Your task to perform on an android device: Open Yahoo.com Image 0: 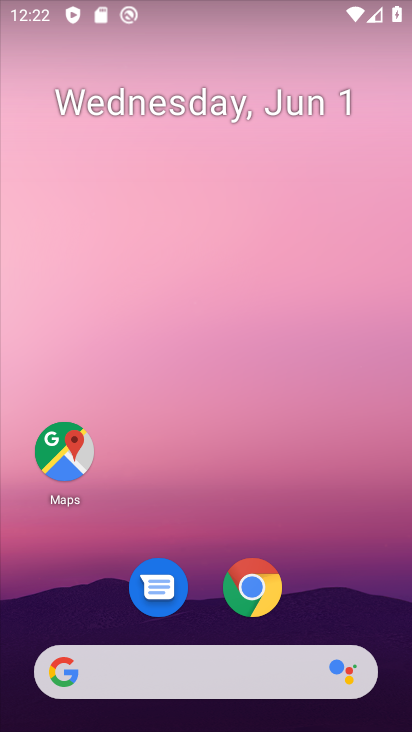
Step 0: click (256, 590)
Your task to perform on an android device: Open Yahoo.com Image 1: 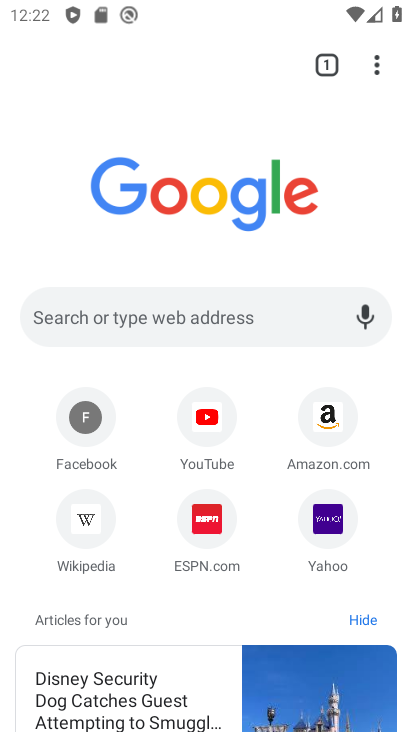
Step 1: click (323, 516)
Your task to perform on an android device: Open Yahoo.com Image 2: 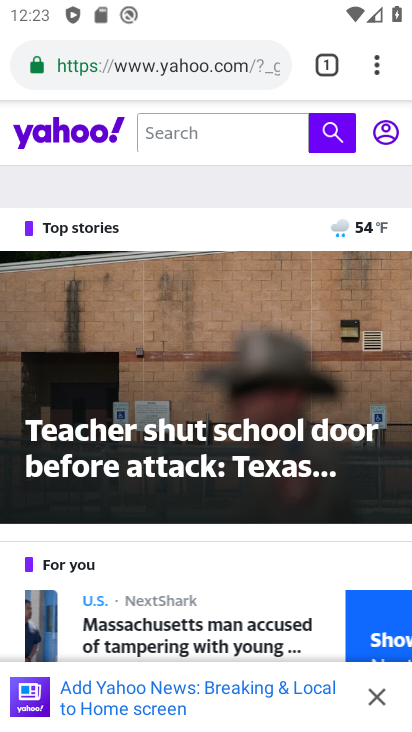
Step 2: task complete